Your task to perform on an android device: Open Amazon Image 0: 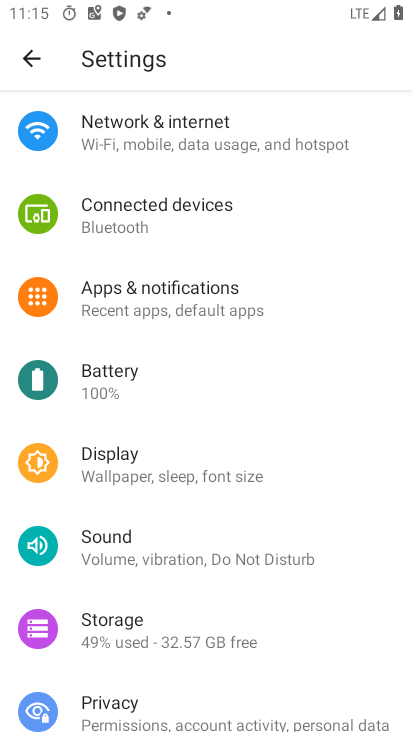
Step 0: press home button
Your task to perform on an android device: Open Amazon Image 1: 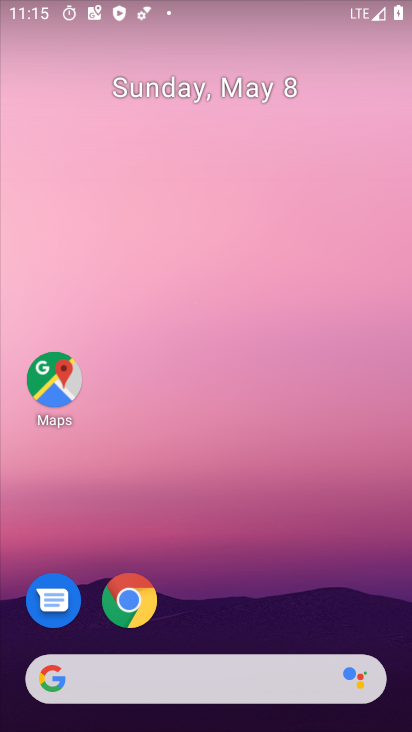
Step 1: click (118, 609)
Your task to perform on an android device: Open Amazon Image 2: 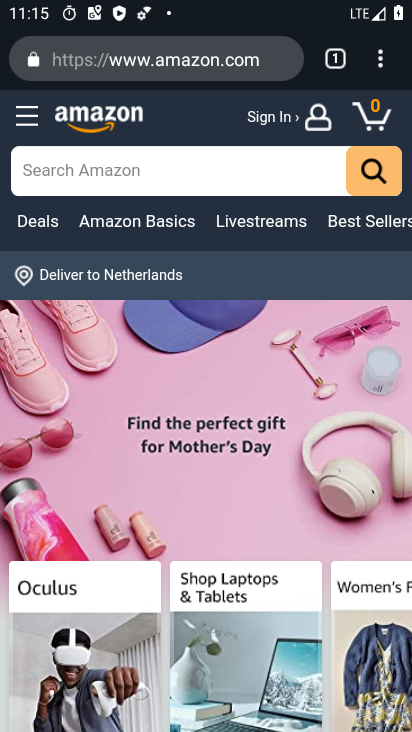
Step 2: task complete